Your task to perform on an android device: turn on location history Image 0: 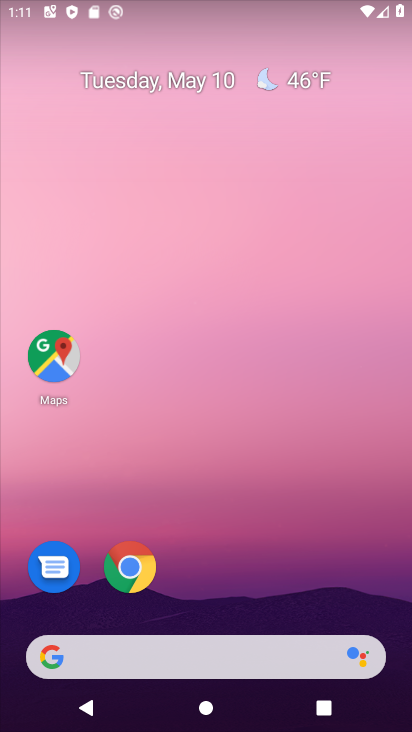
Step 0: drag from (256, 605) to (234, 75)
Your task to perform on an android device: turn on location history Image 1: 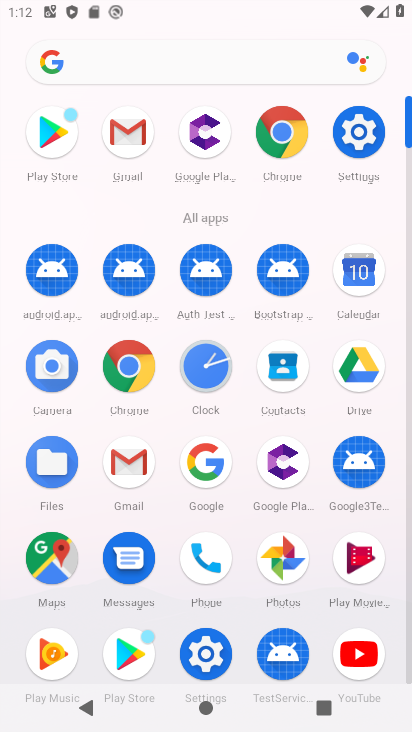
Step 1: click (342, 141)
Your task to perform on an android device: turn on location history Image 2: 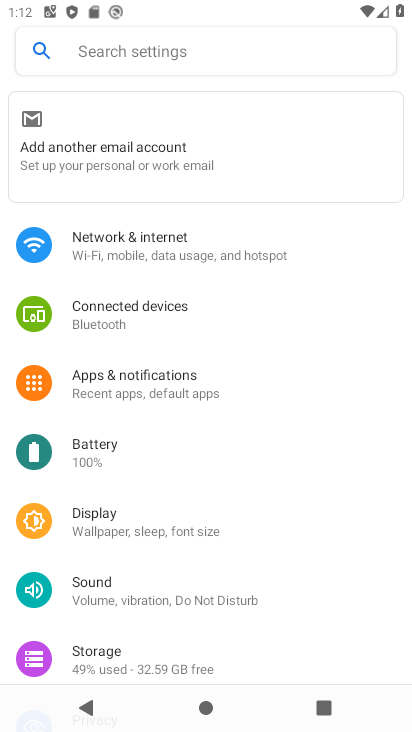
Step 2: drag from (258, 590) to (213, 236)
Your task to perform on an android device: turn on location history Image 3: 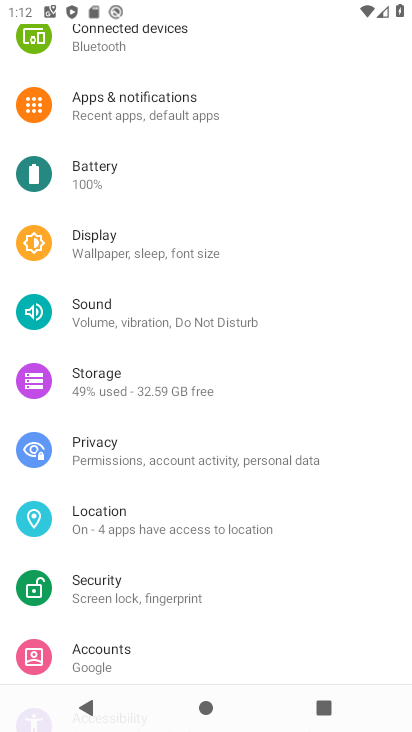
Step 3: click (152, 532)
Your task to perform on an android device: turn on location history Image 4: 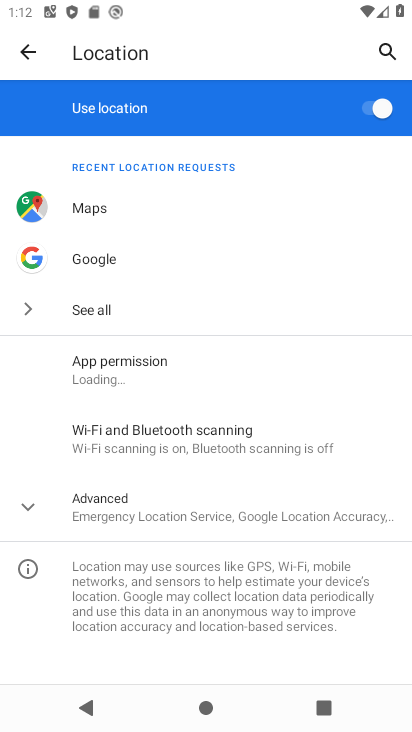
Step 4: drag from (89, 312) to (100, 586)
Your task to perform on an android device: turn on location history Image 5: 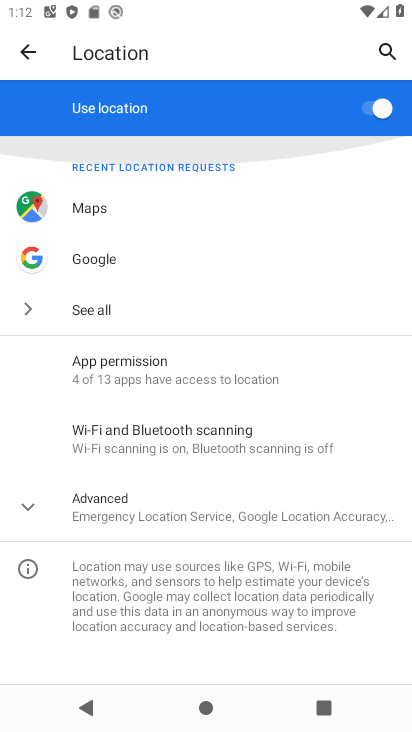
Step 5: click (25, 513)
Your task to perform on an android device: turn on location history Image 6: 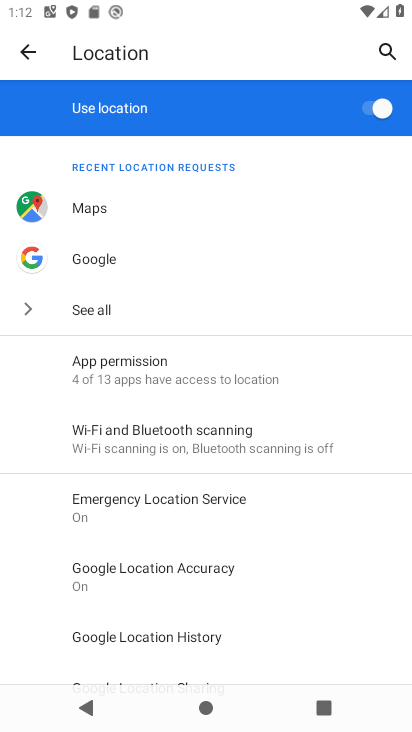
Step 6: click (216, 645)
Your task to perform on an android device: turn on location history Image 7: 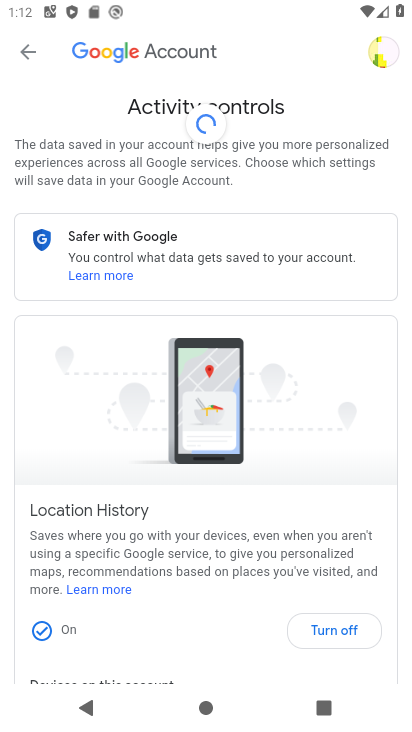
Step 7: task complete